Your task to perform on an android device: open app "Adobe Express: Graphic Design" (install if not already installed) Image 0: 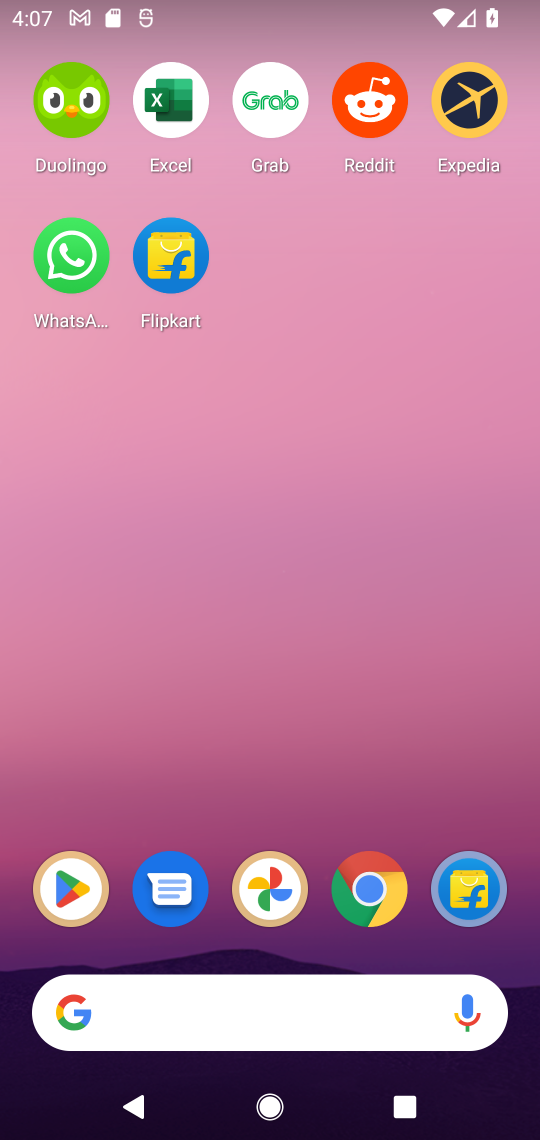
Step 0: press home button
Your task to perform on an android device: open app "Adobe Express: Graphic Design" (install if not already installed) Image 1: 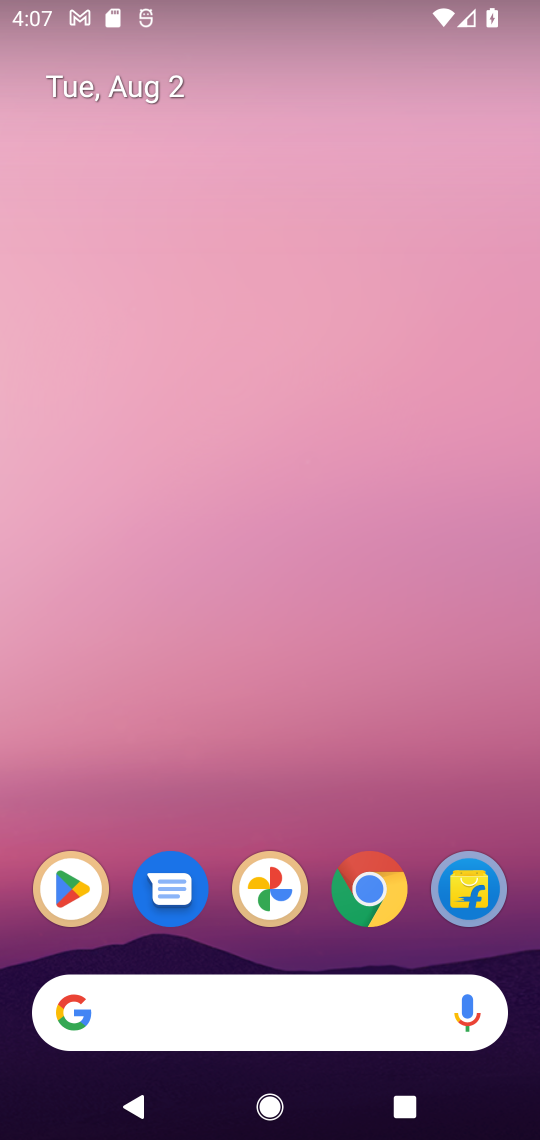
Step 1: drag from (410, 783) to (399, 93)
Your task to perform on an android device: open app "Adobe Express: Graphic Design" (install if not already installed) Image 2: 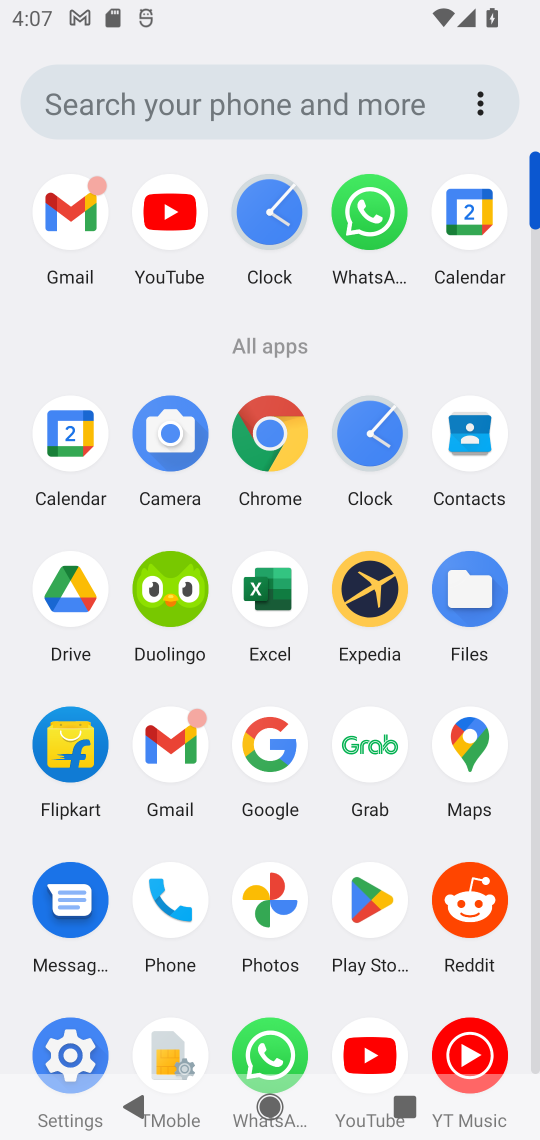
Step 2: click (366, 897)
Your task to perform on an android device: open app "Adobe Express: Graphic Design" (install if not already installed) Image 3: 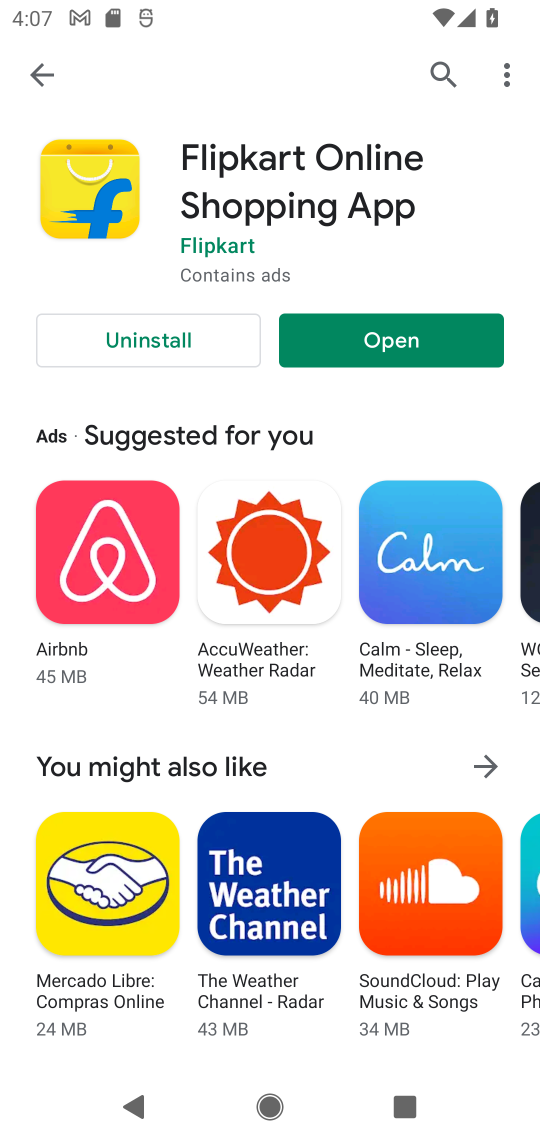
Step 3: click (438, 72)
Your task to perform on an android device: open app "Adobe Express: Graphic Design" (install if not already installed) Image 4: 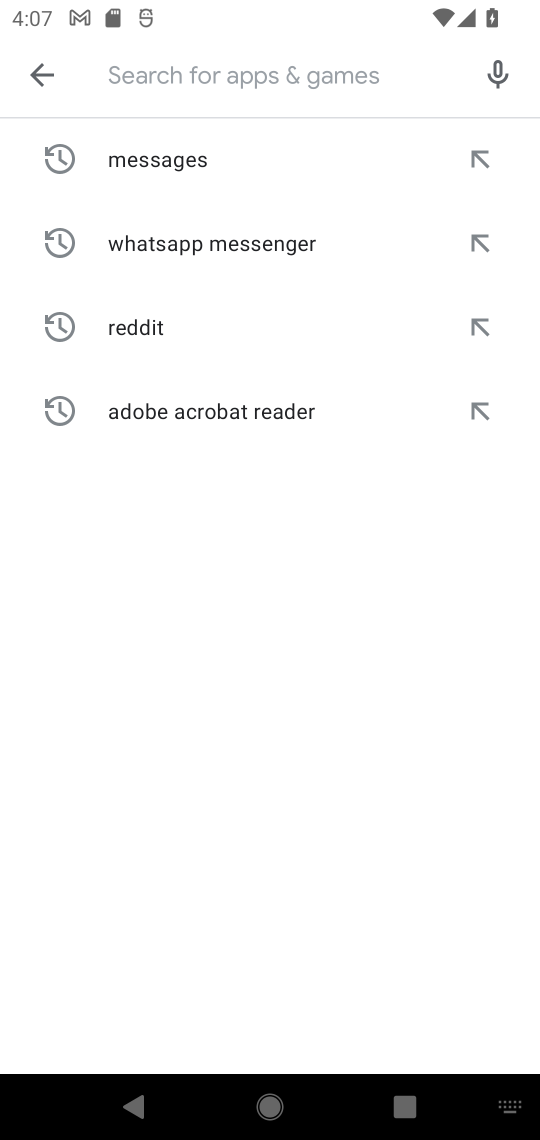
Step 4: click (310, 94)
Your task to perform on an android device: open app "Adobe Express: Graphic Design" (install if not already installed) Image 5: 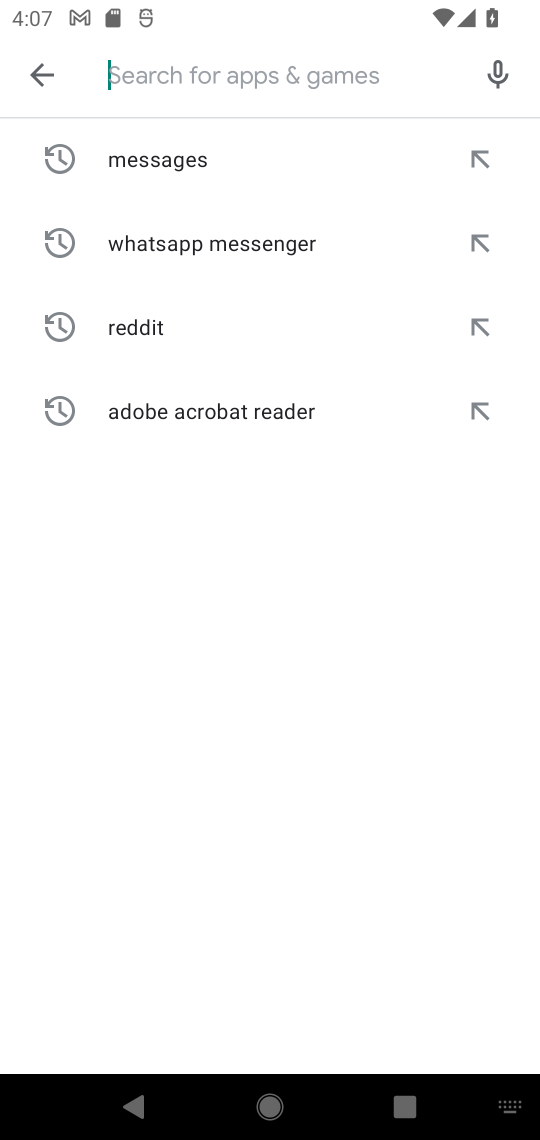
Step 5: type "Adobe Express: Graphic Design"
Your task to perform on an android device: open app "Adobe Express: Graphic Design" (install if not already installed) Image 6: 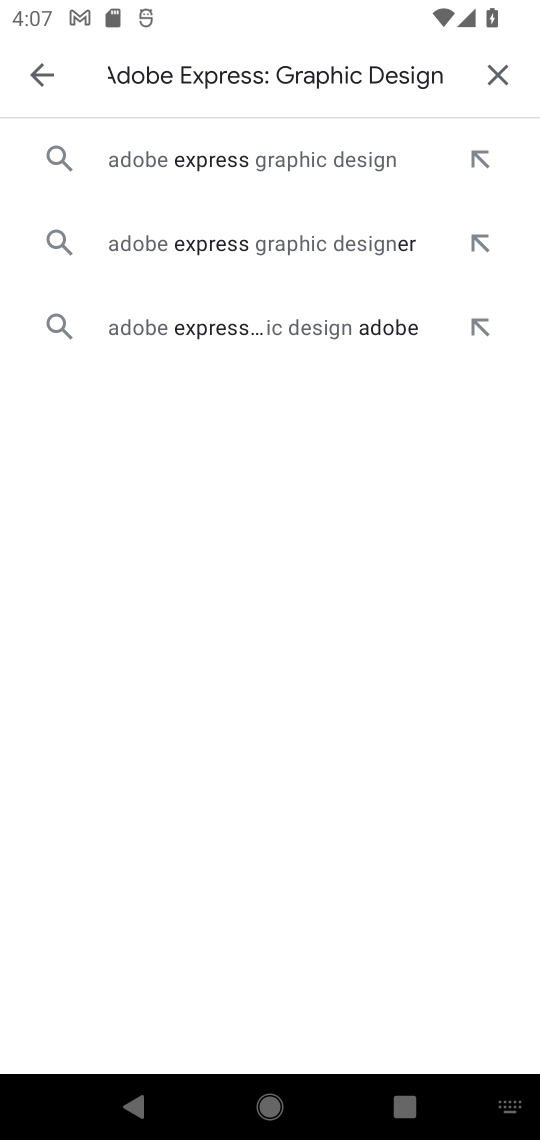
Step 6: click (342, 166)
Your task to perform on an android device: open app "Adobe Express: Graphic Design" (install if not already installed) Image 7: 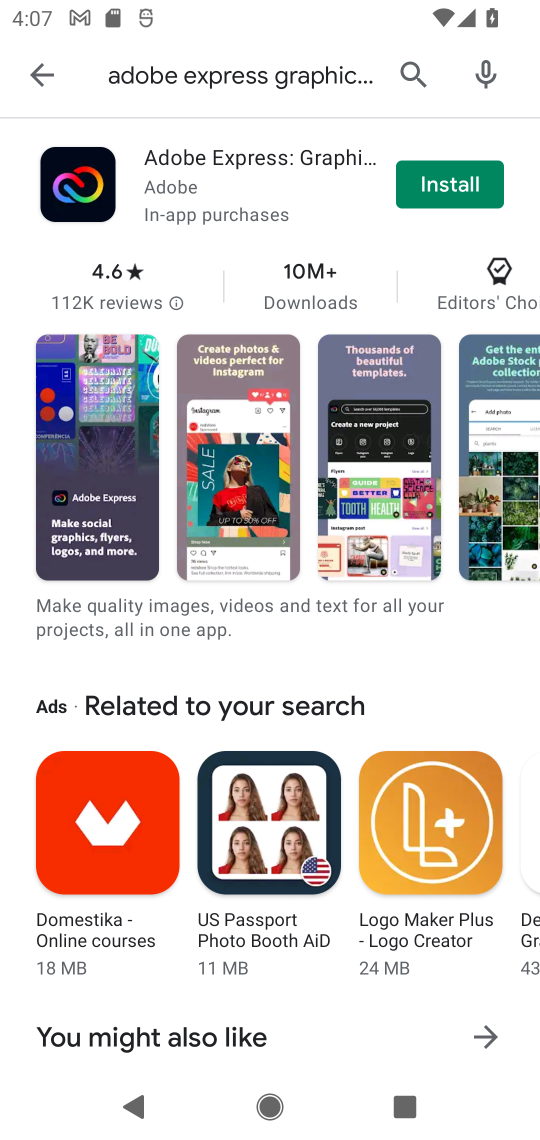
Step 7: click (452, 177)
Your task to perform on an android device: open app "Adobe Express: Graphic Design" (install if not already installed) Image 8: 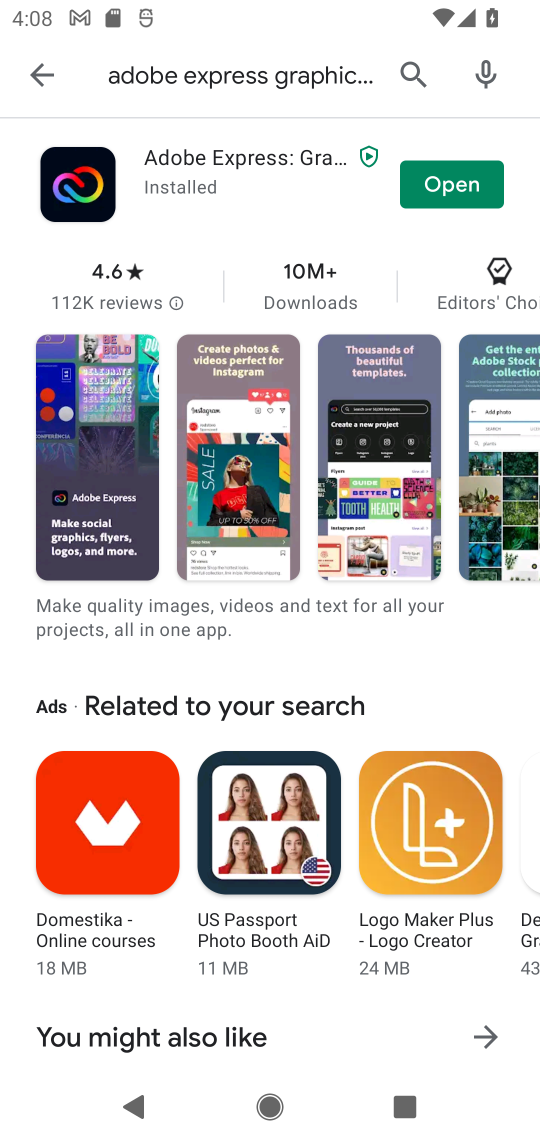
Step 8: click (442, 176)
Your task to perform on an android device: open app "Adobe Express: Graphic Design" (install if not already installed) Image 9: 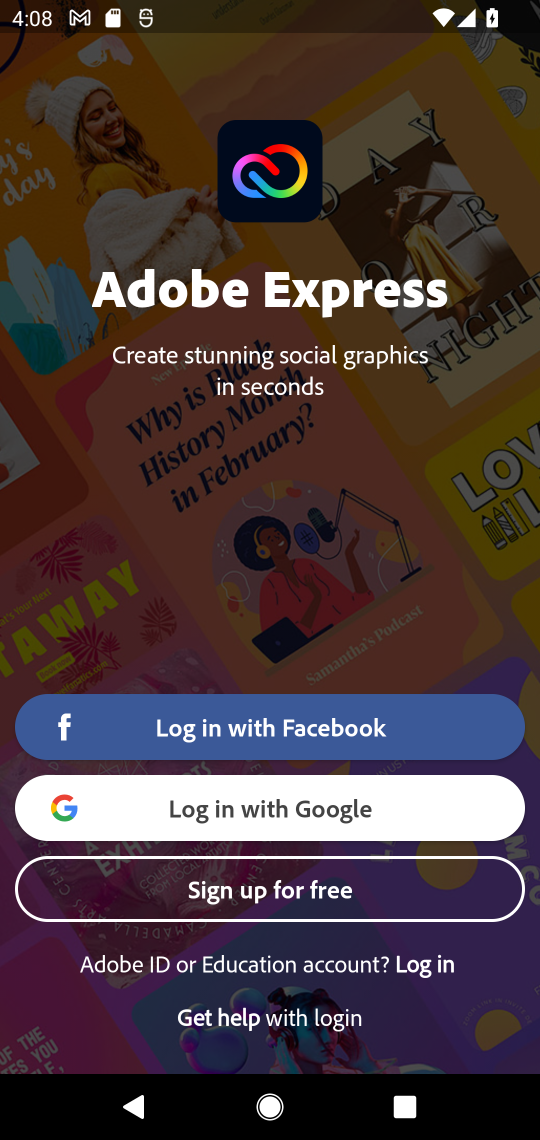
Step 9: task complete